Your task to perform on an android device: visit the assistant section in the google photos Image 0: 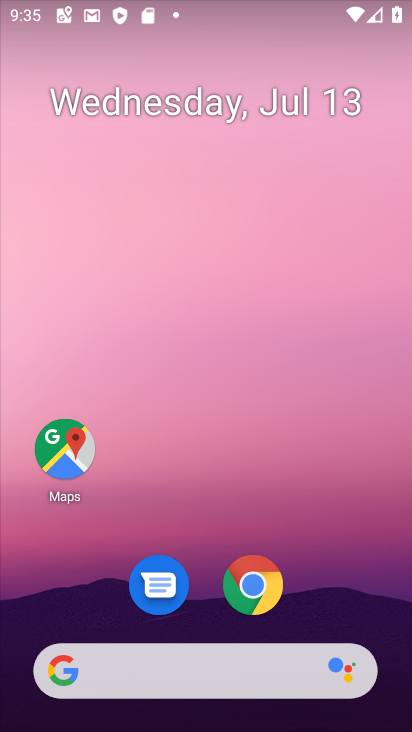
Step 0: drag from (279, 512) to (259, 27)
Your task to perform on an android device: visit the assistant section in the google photos Image 1: 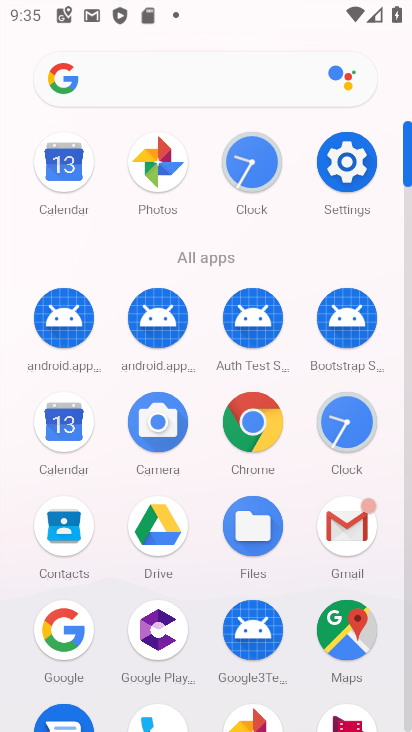
Step 1: click (165, 167)
Your task to perform on an android device: visit the assistant section in the google photos Image 2: 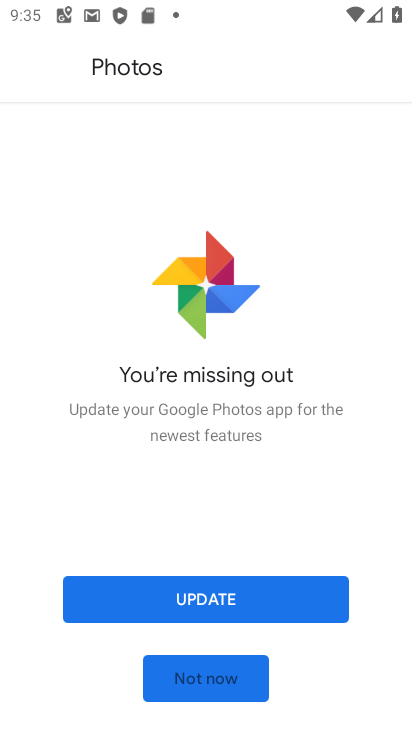
Step 2: click (209, 682)
Your task to perform on an android device: visit the assistant section in the google photos Image 3: 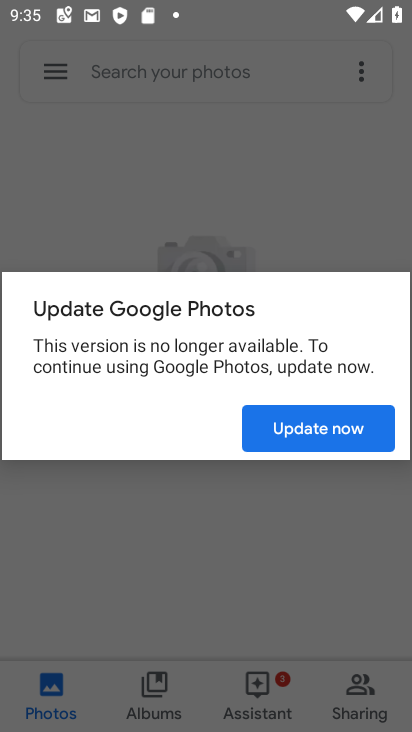
Step 3: click (347, 427)
Your task to perform on an android device: visit the assistant section in the google photos Image 4: 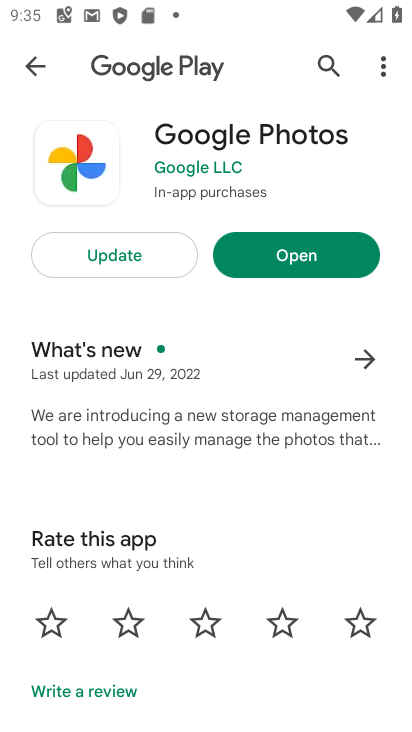
Step 4: click (330, 258)
Your task to perform on an android device: visit the assistant section in the google photos Image 5: 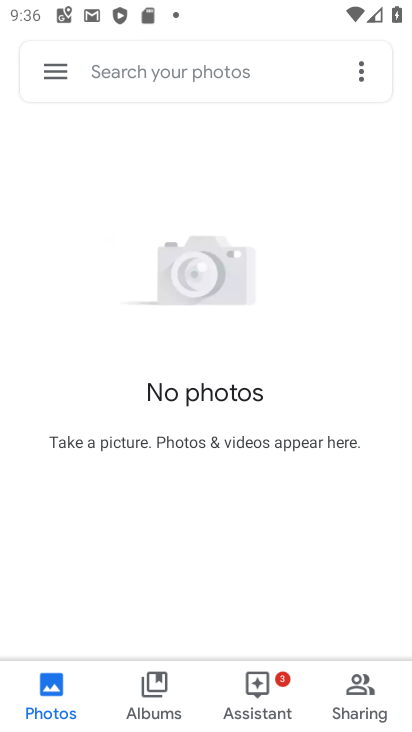
Step 5: click (252, 692)
Your task to perform on an android device: visit the assistant section in the google photos Image 6: 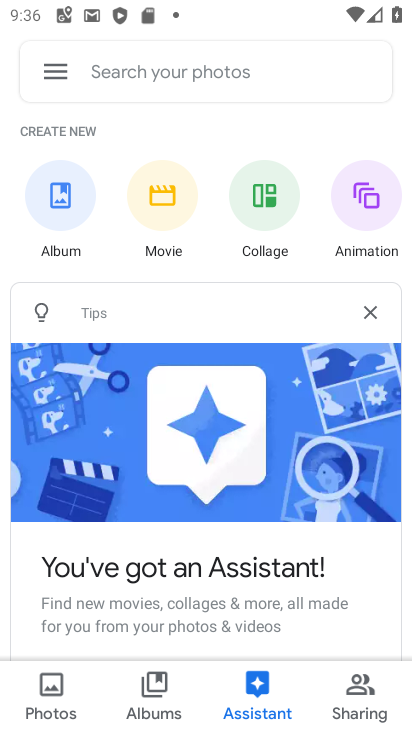
Step 6: task complete